Your task to perform on an android device: turn smart compose on in the gmail app Image 0: 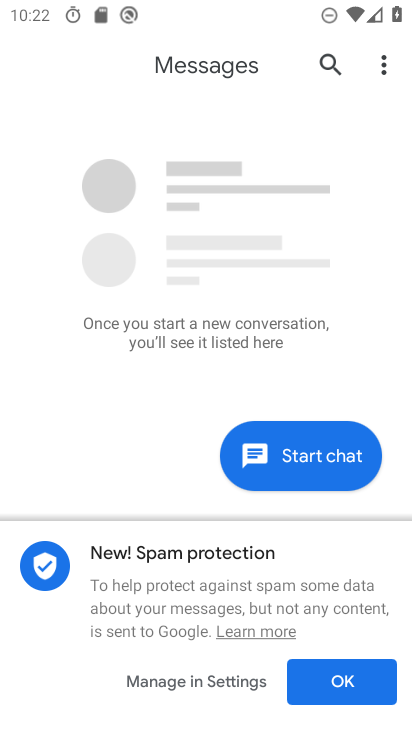
Step 0: press home button
Your task to perform on an android device: turn smart compose on in the gmail app Image 1: 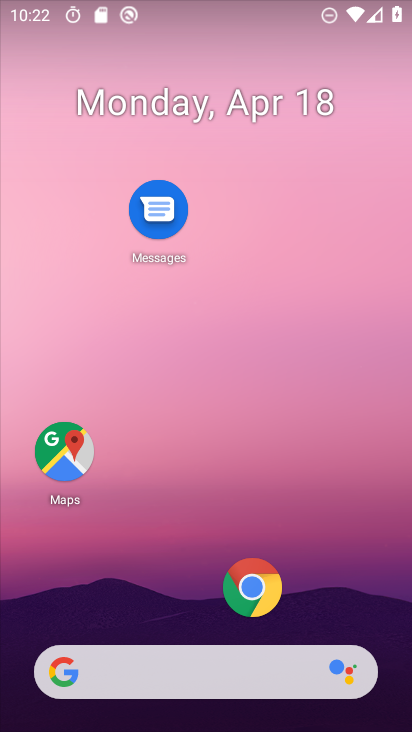
Step 1: drag from (166, 594) to (274, 102)
Your task to perform on an android device: turn smart compose on in the gmail app Image 2: 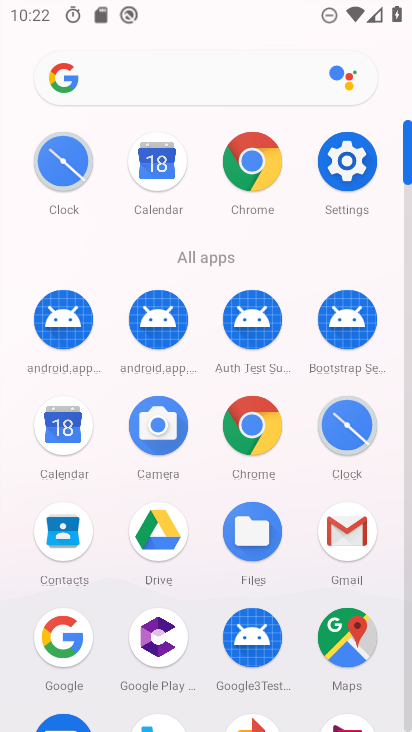
Step 2: click (347, 531)
Your task to perform on an android device: turn smart compose on in the gmail app Image 3: 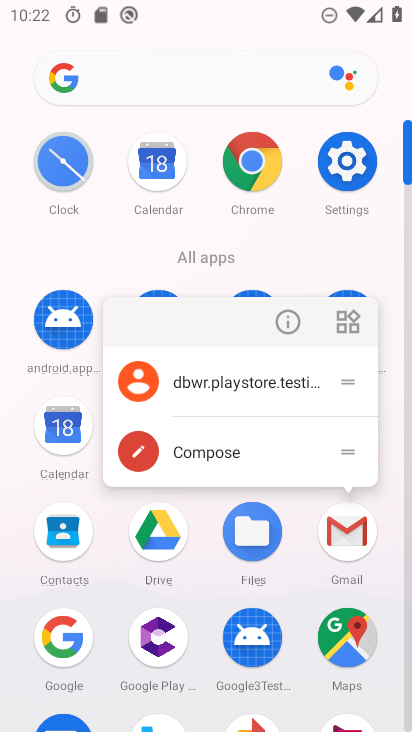
Step 3: click (345, 531)
Your task to perform on an android device: turn smart compose on in the gmail app Image 4: 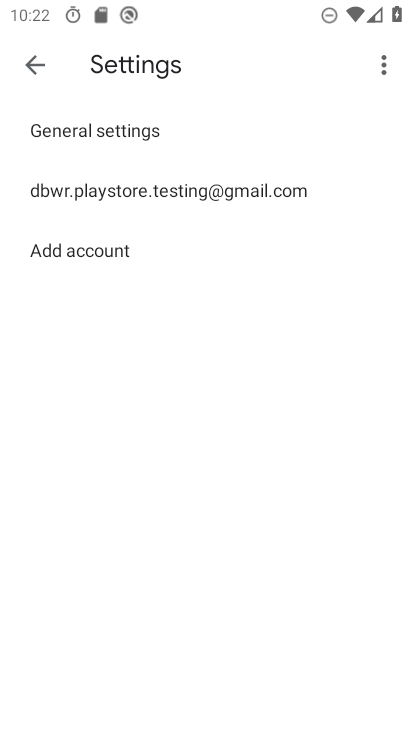
Step 4: click (121, 194)
Your task to perform on an android device: turn smart compose on in the gmail app Image 5: 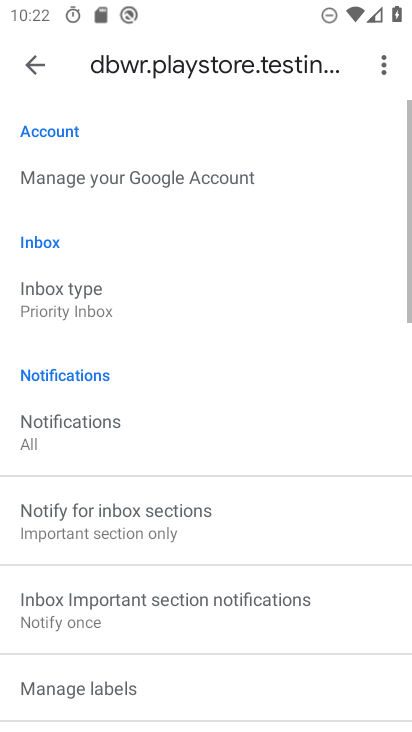
Step 5: task complete